Your task to perform on an android device: allow notifications from all sites in the chrome app Image 0: 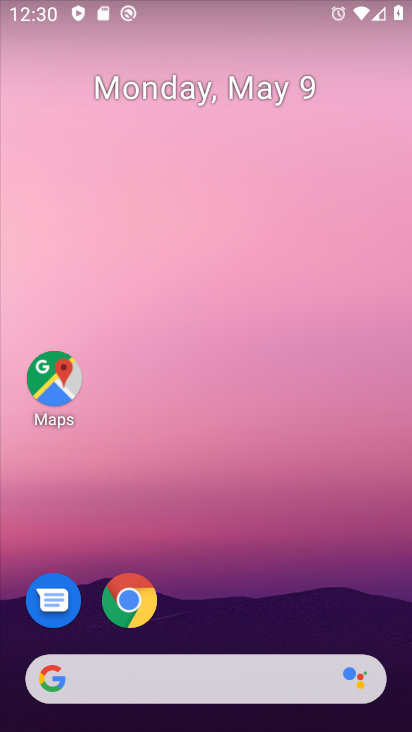
Step 0: click (132, 606)
Your task to perform on an android device: allow notifications from all sites in the chrome app Image 1: 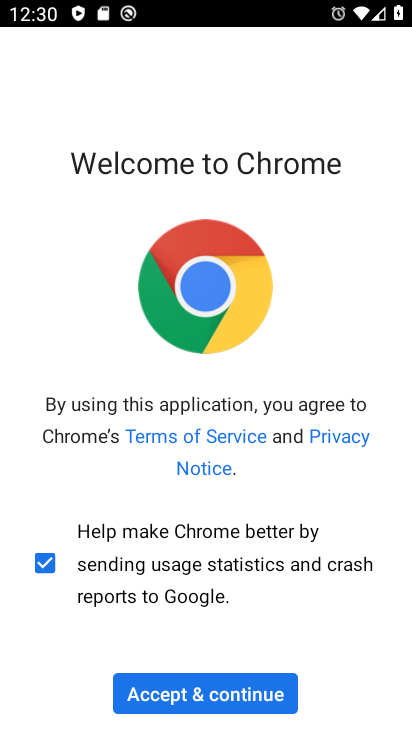
Step 1: click (158, 691)
Your task to perform on an android device: allow notifications from all sites in the chrome app Image 2: 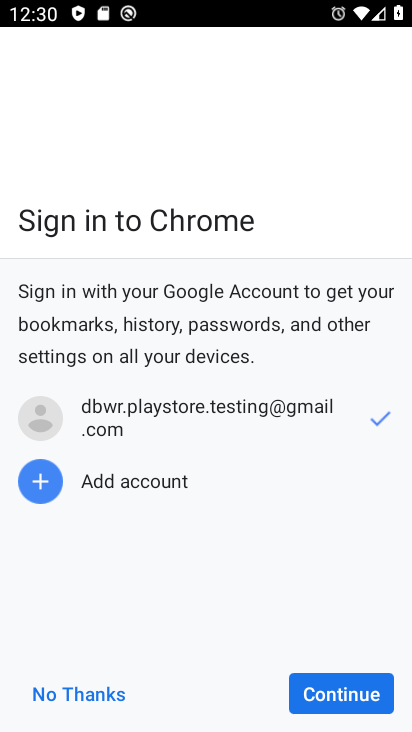
Step 2: click (322, 704)
Your task to perform on an android device: allow notifications from all sites in the chrome app Image 3: 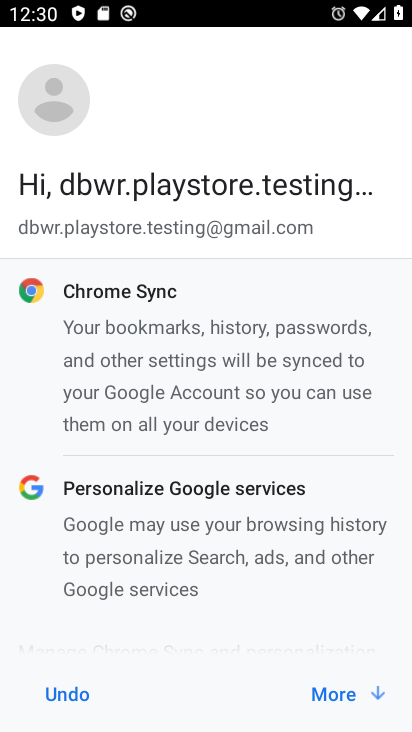
Step 3: click (314, 692)
Your task to perform on an android device: allow notifications from all sites in the chrome app Image 4: 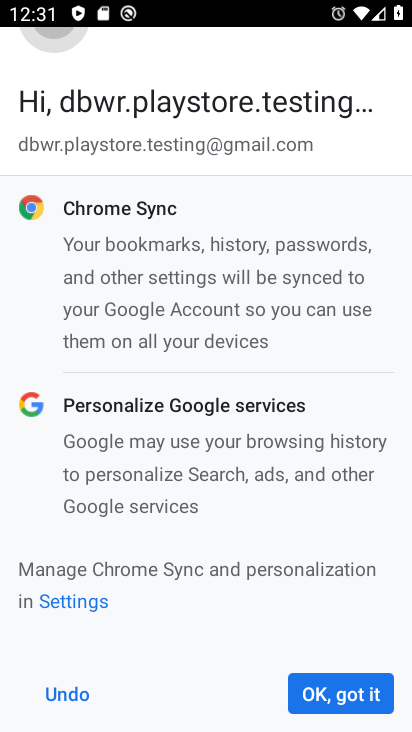
Step 4: click (321, 699)
Your task to perform on an android device: allow notifications from all sites in the chrome app Image 5: 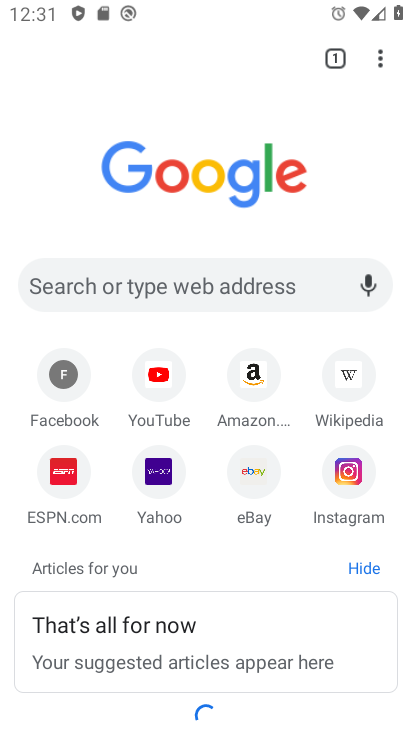
Step 5: click (378, 63)
Your task to perform on an android device: allow notifications from all sites in the chrome app Image 6: 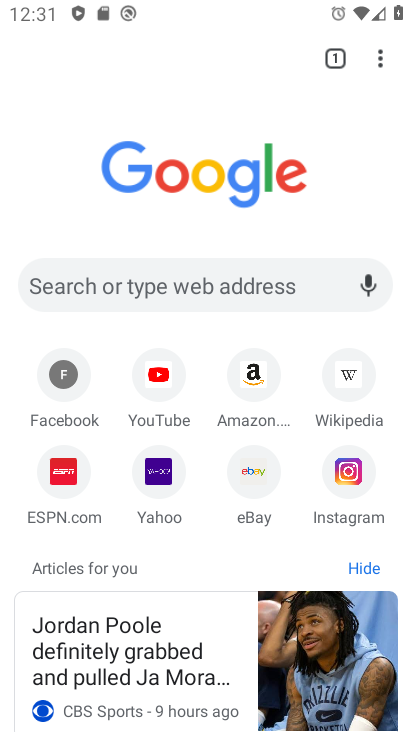
Step 6: click (373, 56)
Your task to perform on an android device: allow notifications from all sites in the chrome app Image 7: 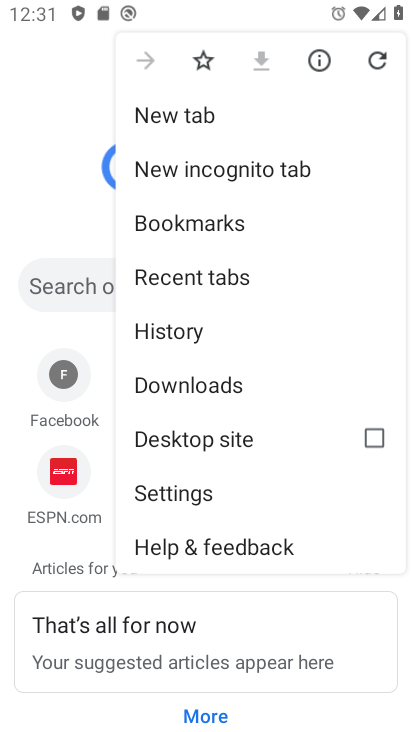
Step 7: click (252, 496)
Your task to perform on an android device: allow notifications from all sites in the chrome app Image 8: 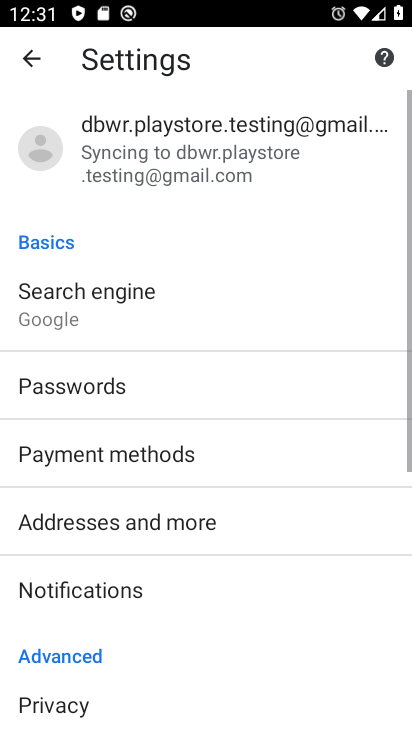
Step 8: drag from (211, 616) to (247, 265)
Your task to perform on an android device: allow notifications from all sites in the chrome app Image 9: 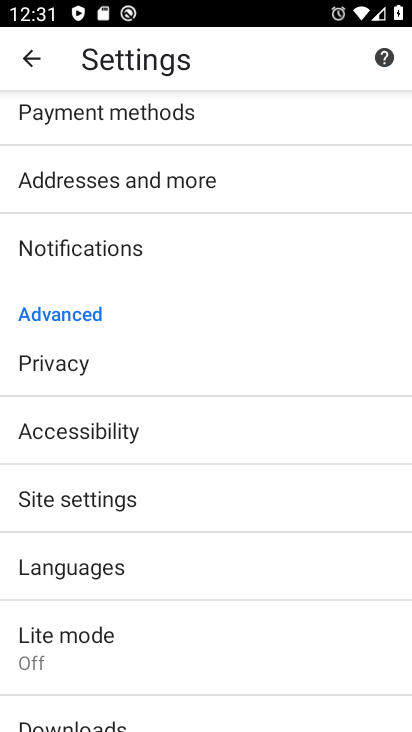
Step 9: click (246, 229)
Your task to perform on an android device: allow notifications from all sites in the chrome app Image 10: 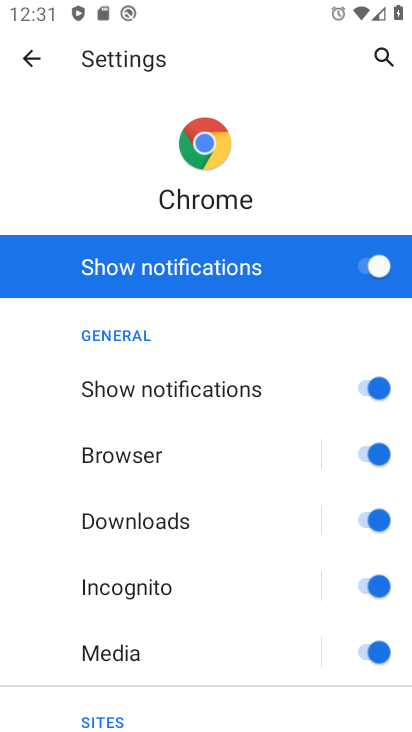
Step 10: task complete